Your task to perform on an android device: stop showing notifications on the lock screen Image 0: 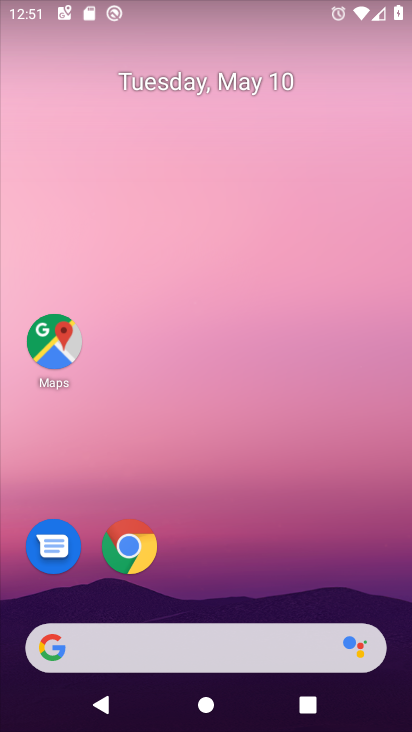
Step 0: press home button
Your task to perform on an android device: stop showing notifications on the lock screen Image 1: 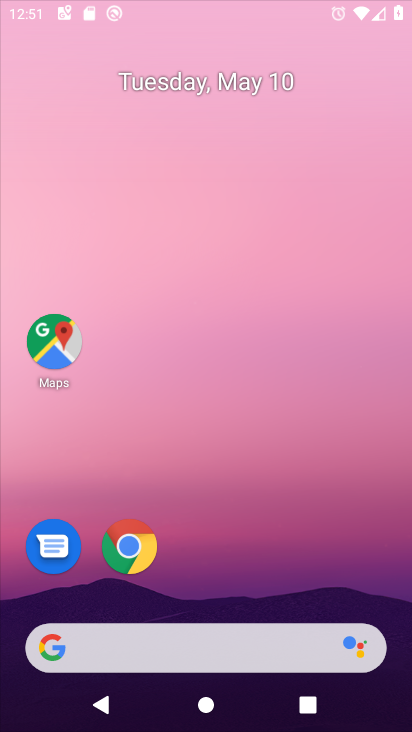
Step 1: drag from (352, 564) to (339, 14)
Your task to perform on an android device: stop showing notifications on the lock screen Image 2: 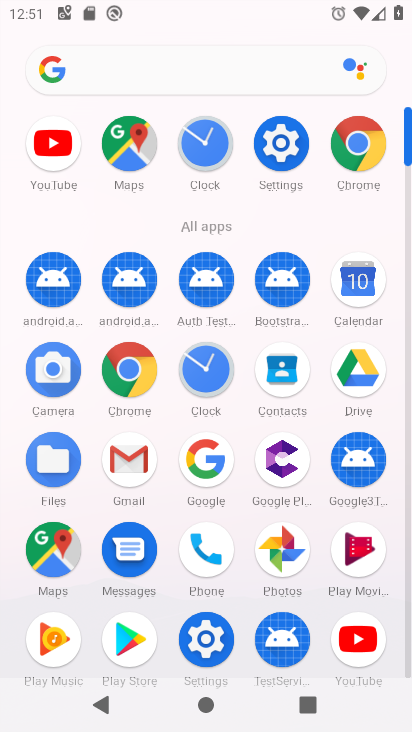
Step 2: click (220, 635)
Your task to perform on an android device: stop showing notifications on the lock screen Image 3: 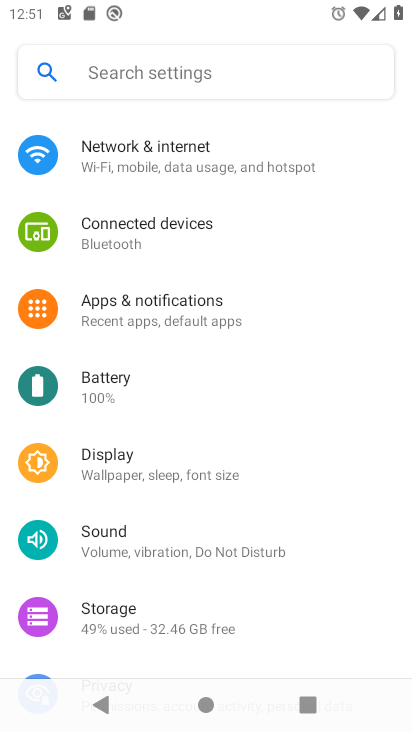
Step 3: drag from (202, 510) to (147, 122)
Your task to perform on an android device: stop showing notifications on the lock screen Image 4: 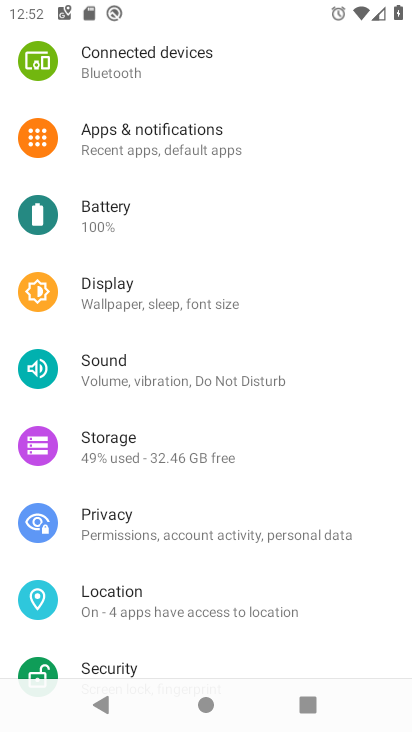
Step 4: click (218, 148)
Your task to perform on an android device: stop showing notifications on the lock screen Image 5: 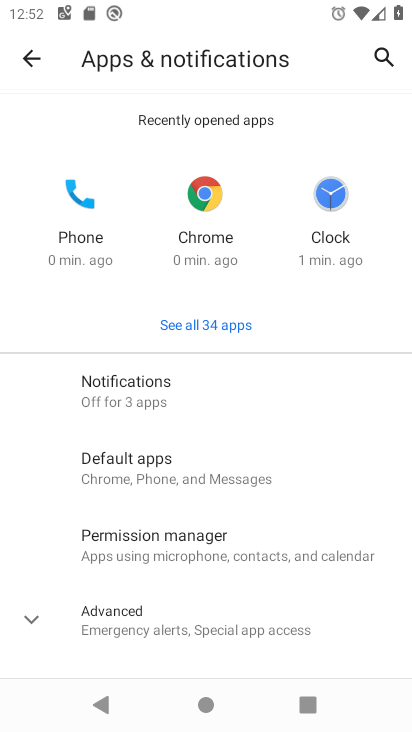
Step 5: click (159, 397)
Your task to perform on an android device: stop showing notifications on the lock screen Image 6: 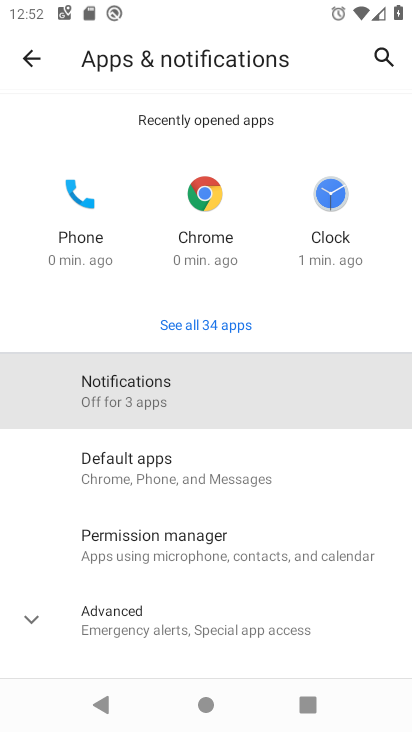
Step 6: drag from (239, 593) to (237, 62)
Your task to perform on an android device: stop showing notifications on the lock screen Image 7: 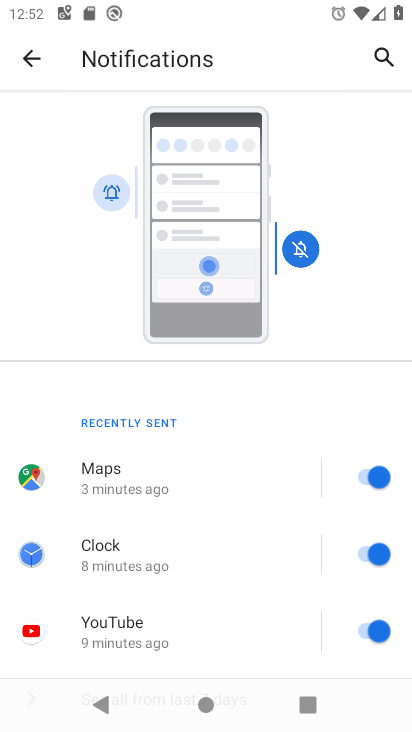
Step 7: drag from (237, 345) to (236, 85)
Your task to perform on an android device: stop showing notifications on the lock screen Image 8: 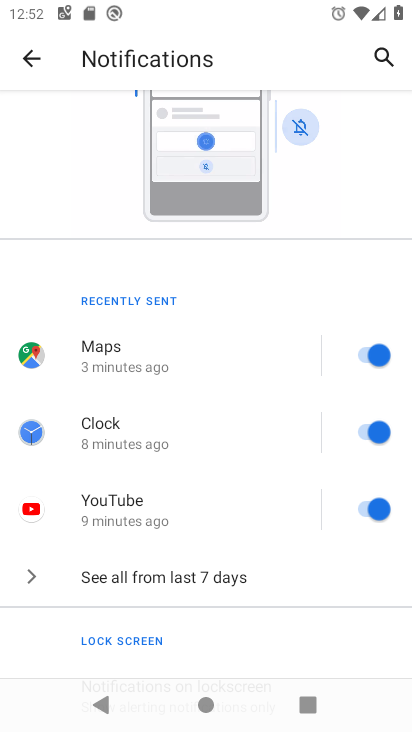
Step 8: drag from (238, 564) to (240, 210)
Your task to perform on an android device: stop showing notifications on the lock screen Image 9: 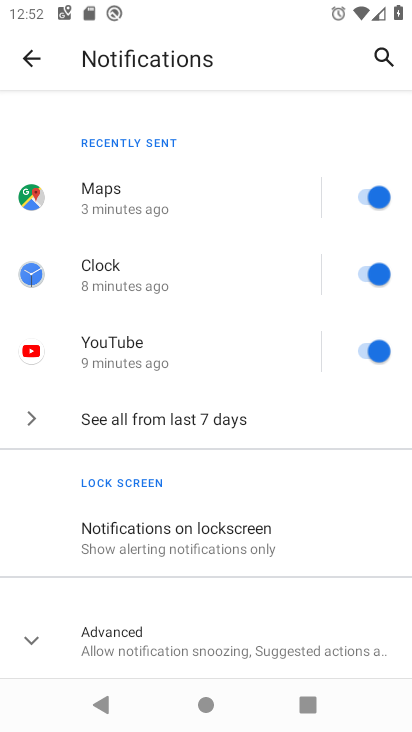
Step 9: click (201, 546)
Your task to perform on an android device: stop showing notifications on the lock screen Image 10: 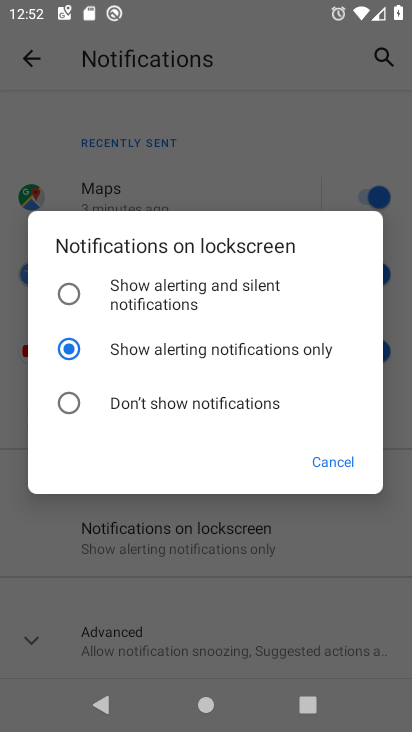
Step 10: click (183, 402)
Your task to perform on an android device: stop showing notifications on the lock screen Image 11: 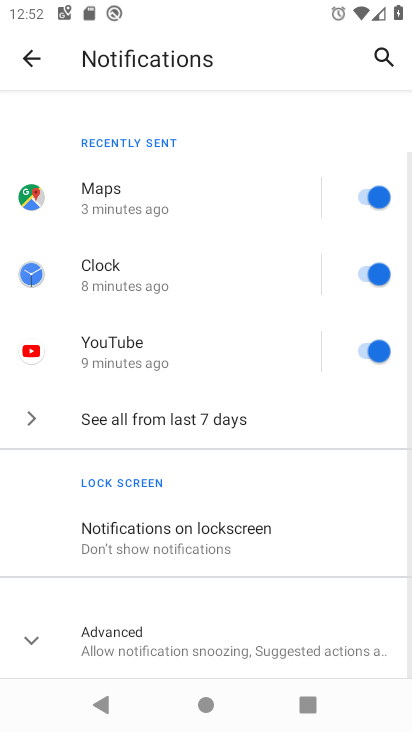
Step 11: task complete